Your task to perform on an android device: delete location history Image 0: 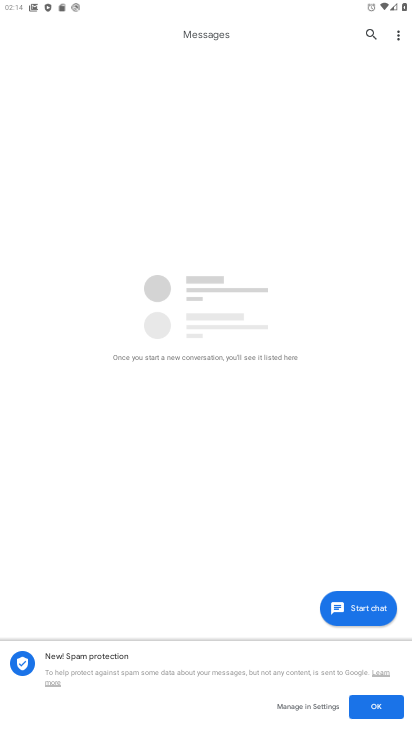
Step 0: press home button
Your task to perform on an android device: delete location history Image 1: 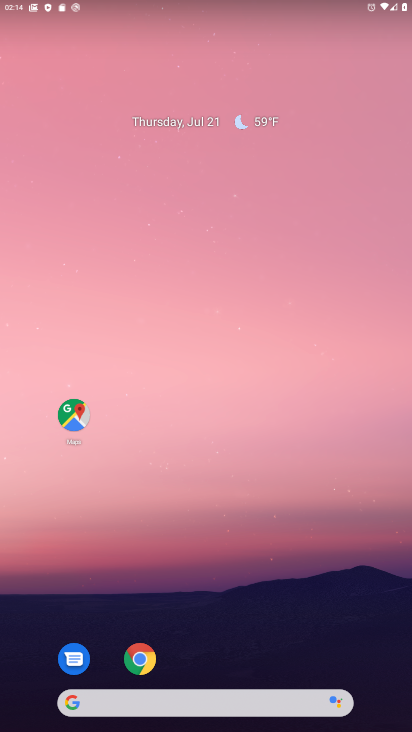
Step 1: drag from (283, 609) to (117, 0)
Your task to perform on an android device: delete location history Image 2: 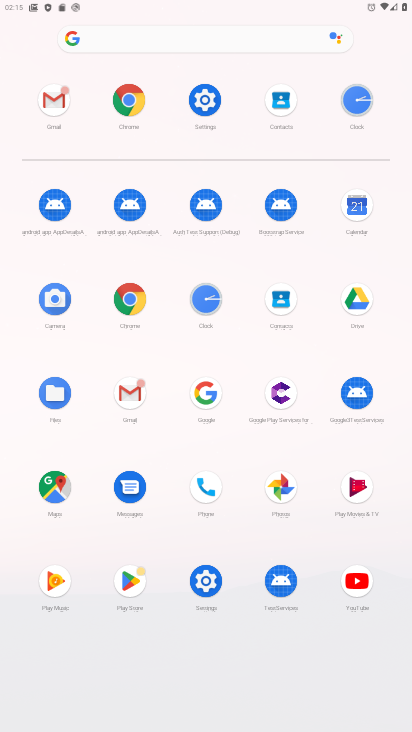
Step 2: click (59, 475)
Your task to perform on an android device: delete location history Image 3: 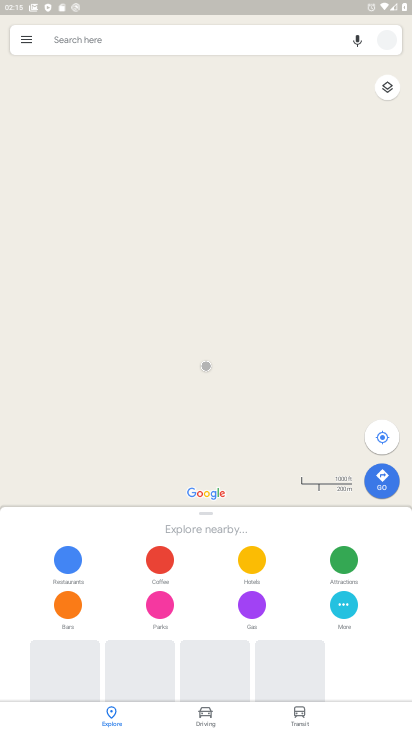
Step 3: click (17, 38)
Your task to perform on an android device: delete location history Image 4: 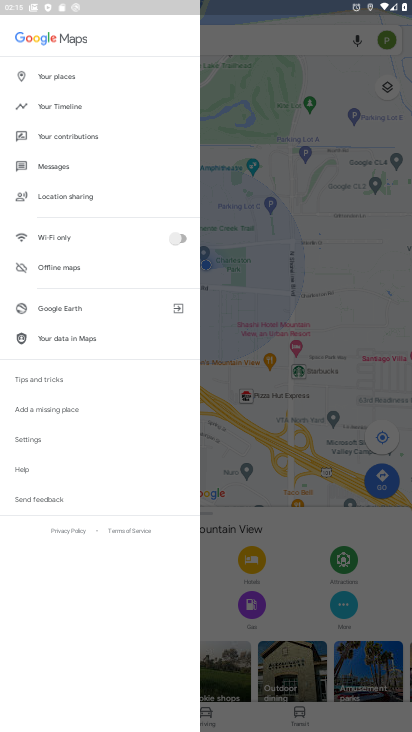
Step 4: click (36, 438)
Your task to perform on an android device: delete location history Image 5: 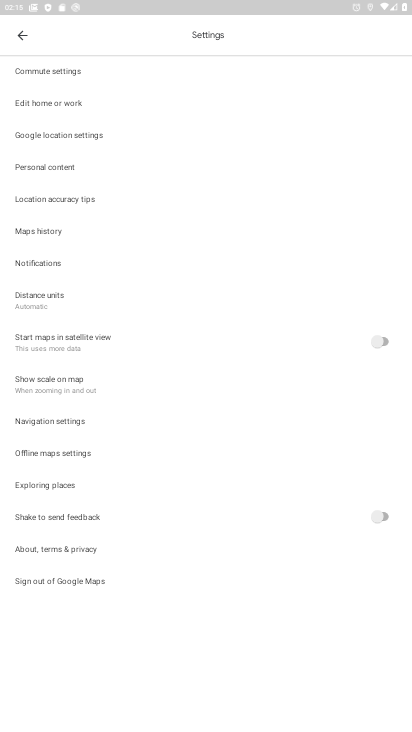
Step 5: click (56, 232)
Your task to perform on an android device: delete location history Image 6: 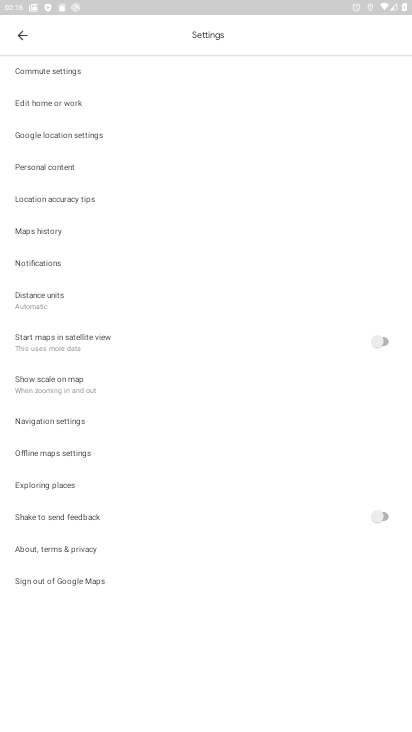
Step 6: click (56, 230)
Your task to perform on an android device: delete location history Image 7: 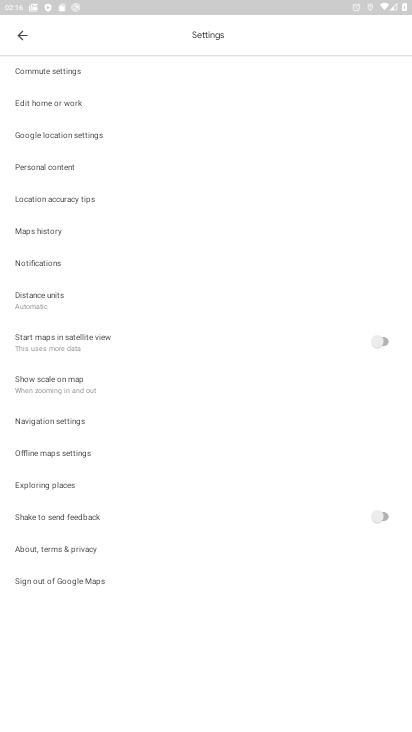
Step 7: click (58, 227)
Your task to perform on an android device: delete location history Image 8: 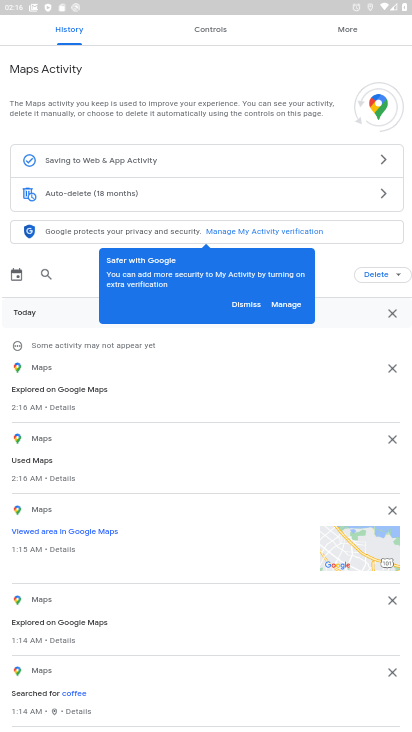
Step 8: click (375, 274)
Your task to perform on an android device: delete location history Image 9: 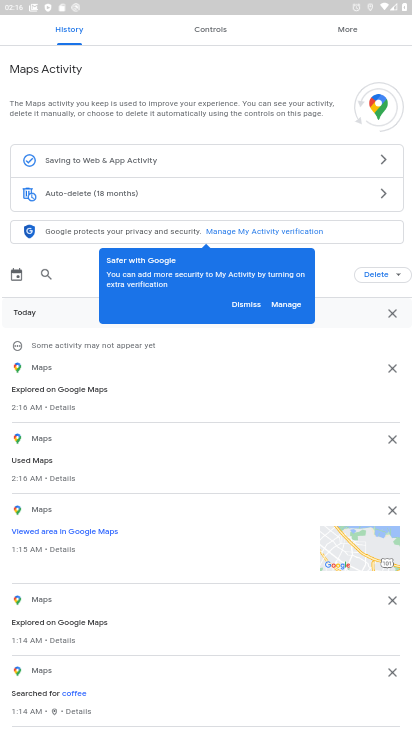
Step 9: click (385, 271)
Your task to perform on an android device: delete location history Image 10: 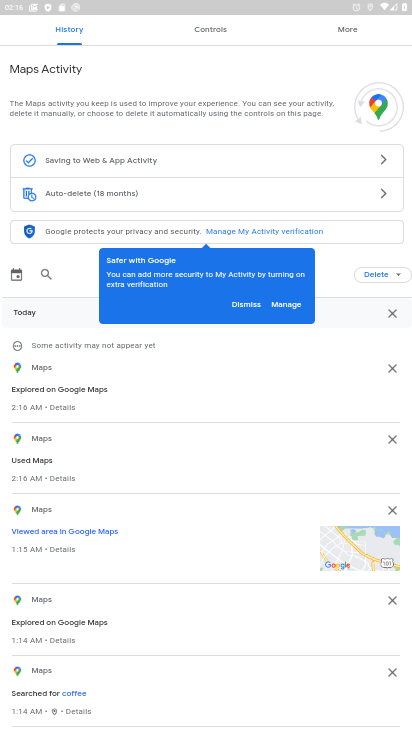
Step 10: click (399, 271)
Your task to perform on an android device: delete location history Image 11: 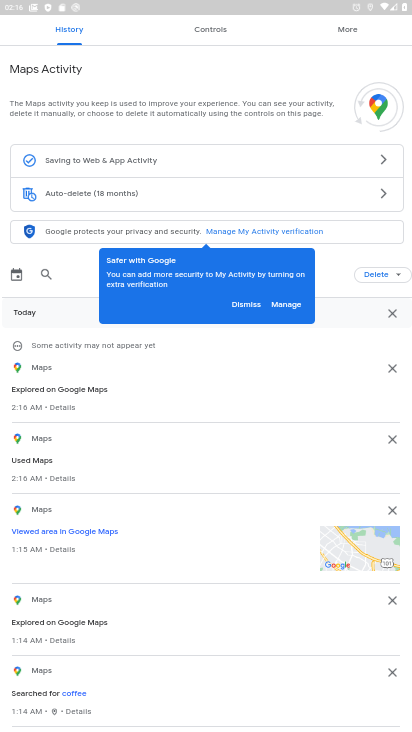
Step 11: click (396, 273)
Your task to perform on an android device: delete location history Image 12: 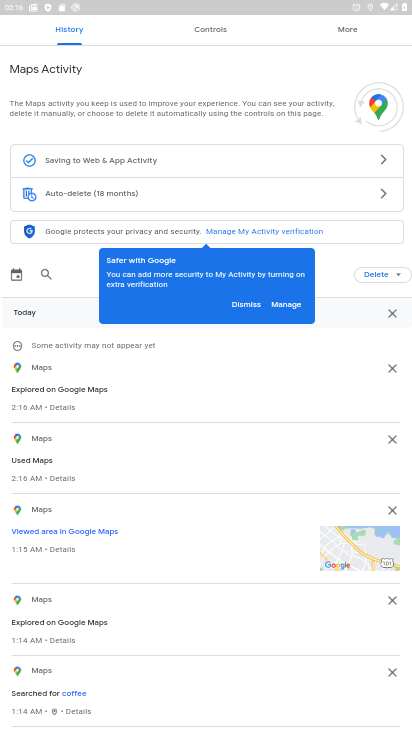
Step 12: click (395, 274)
Your task to perform on an android device: delete location history Image 13: 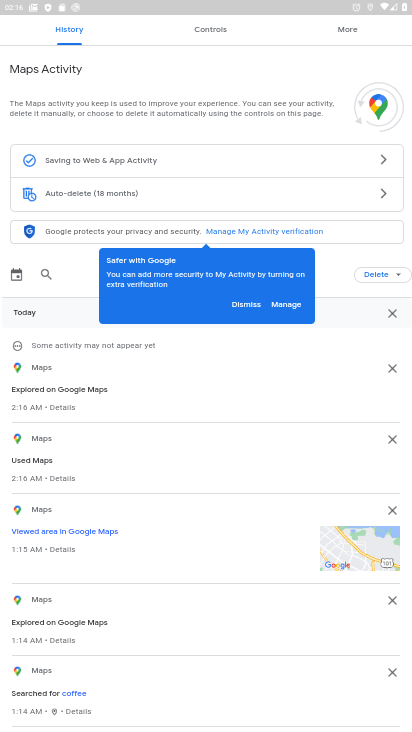
Step 13: click (382, 279)
Your task to perform on an android device: delete location history Image 14: 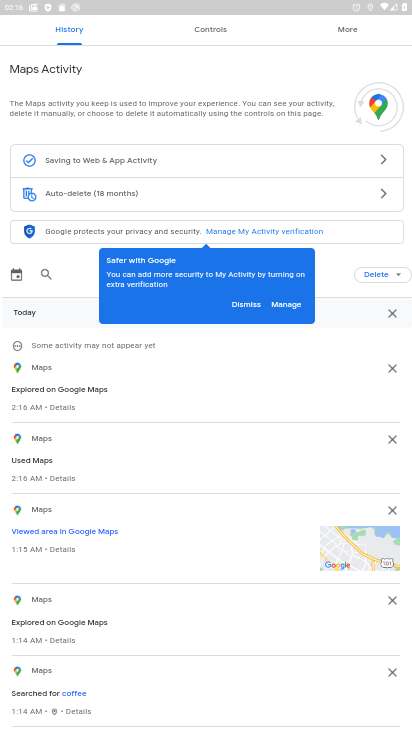
Step 14: click (382, 279)
Your task to perform on an android device: delete location history Image 15: 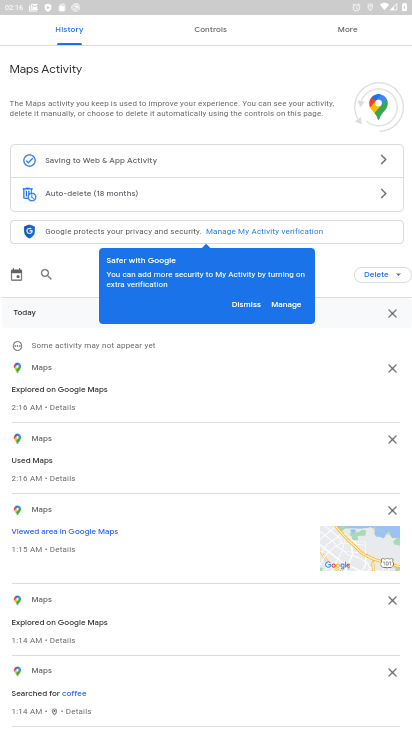
Step 15: click (383, 274)
Your task to perform on an android device: delete location history Image 16: 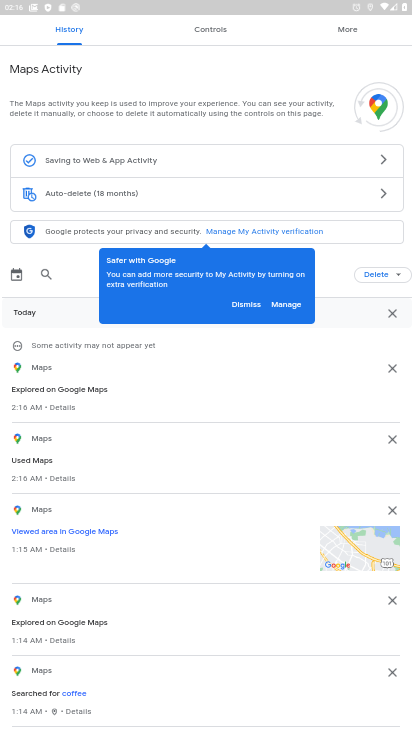
Step 16: click (251, 305)
Your task to perform on an android device: delete location history Image 17: 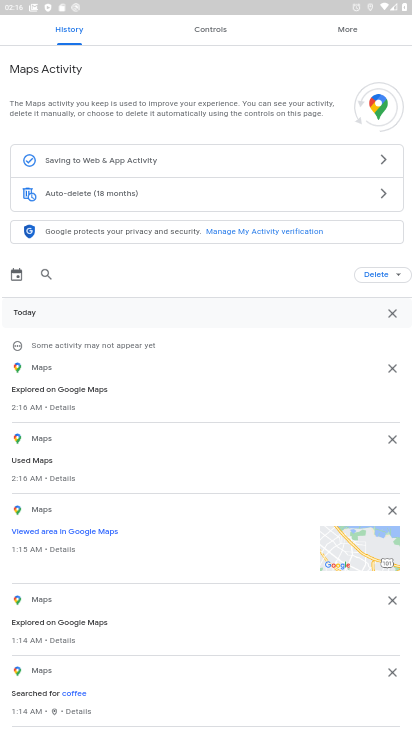
Step 17: click (396, 269)
Your task to perform on an android device: delete location history Image 18: 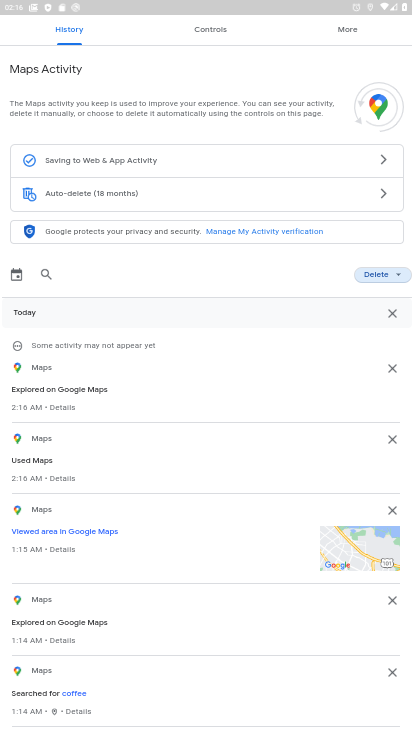
Step 18: click (387, 273)
Your task to perform on an android device: delete location history Image 19: 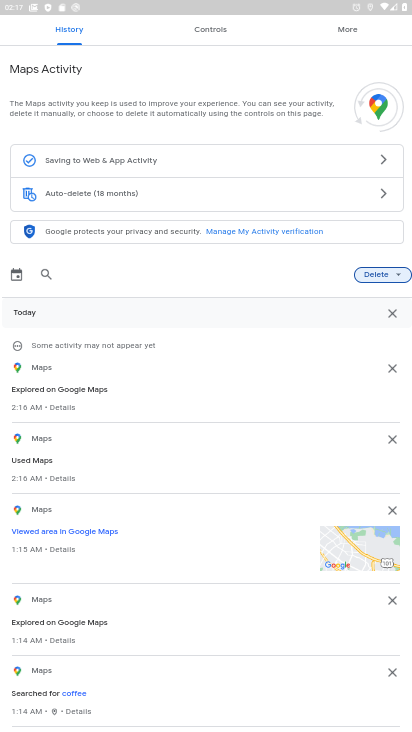
Step 19: click (391, 277)
Your task to perform on an android device: delete location history Image 20: 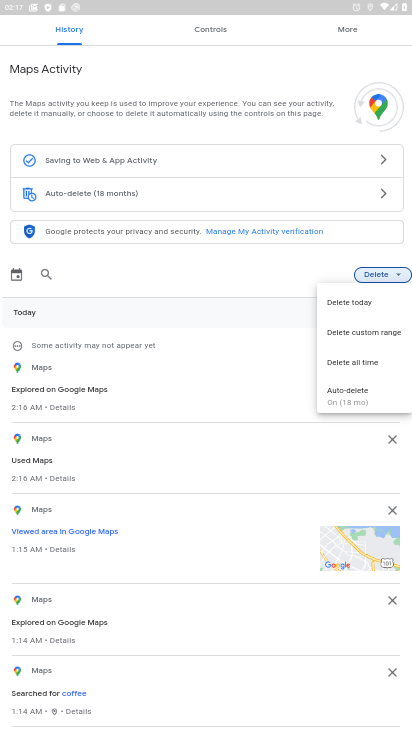
Step 20: click (378, 359)
Your task to perform on an android device: delete location history Image 21: 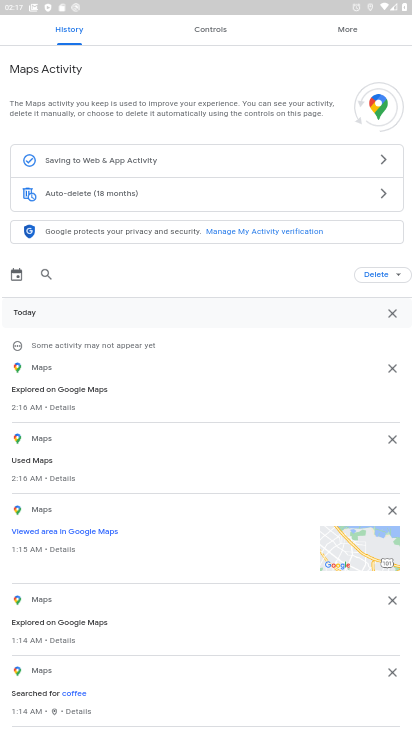
Step 21: click (391, 274)
Your task to perform on an android device: delete location history Image 22: 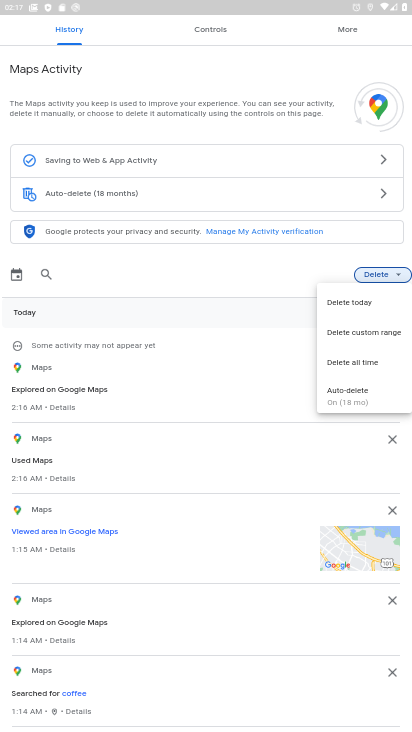
Step 22: click (361, 363)
Your task to perform on an android device: delete location history Image 23: 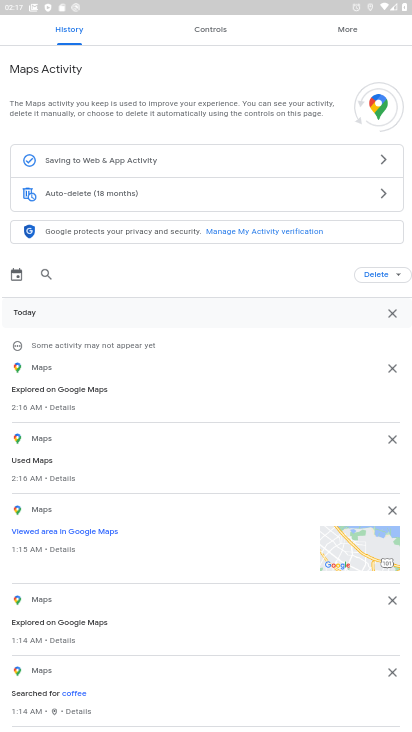
Step 23: click (387, 277)
Your task to perform on an android device: delete location history Image 24: 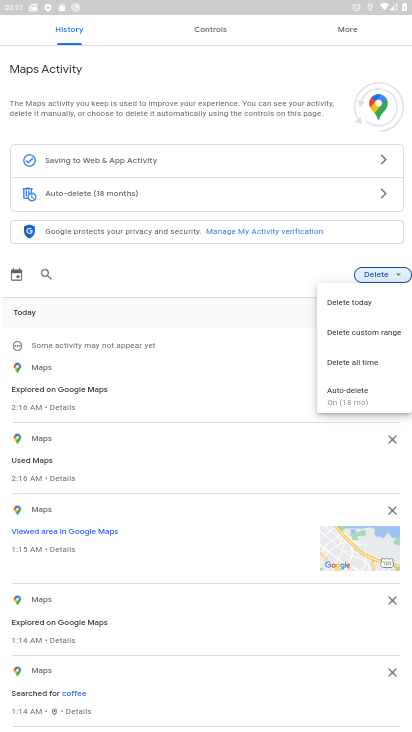
Step 24: click (354, 360)
Your task to perform on an android device: delete location history Image 25: 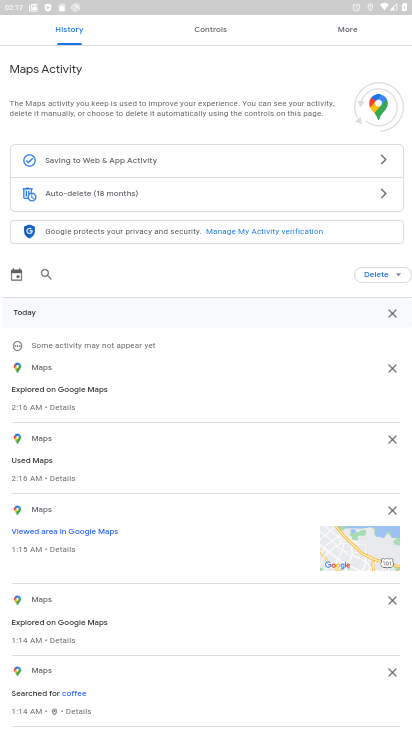
Step 25: click (396, 267)
Your task to perform on an android device: delete location history Image 26: 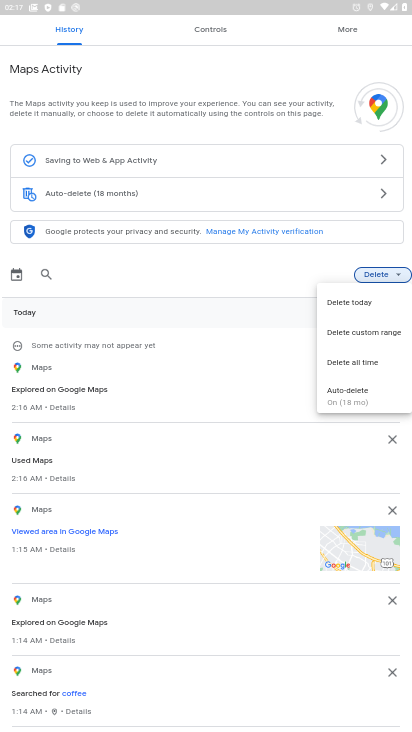
Step 26: click (359, 365)
Your task to perform on an android device: delete location history Image 27: 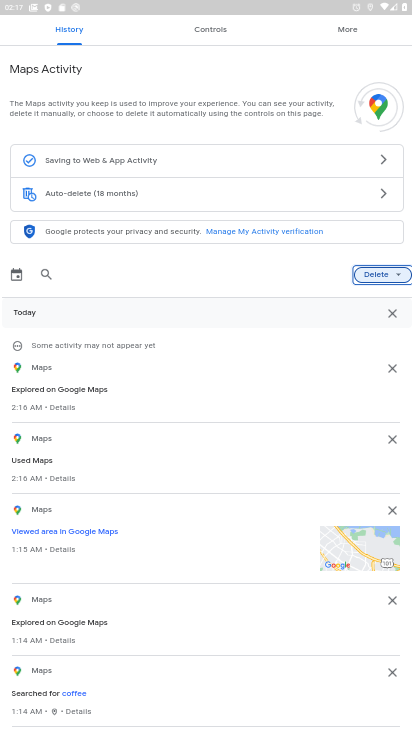
Step 27: task complete